Your task to perform on an android device: change the clock display to show seconds Image 0: 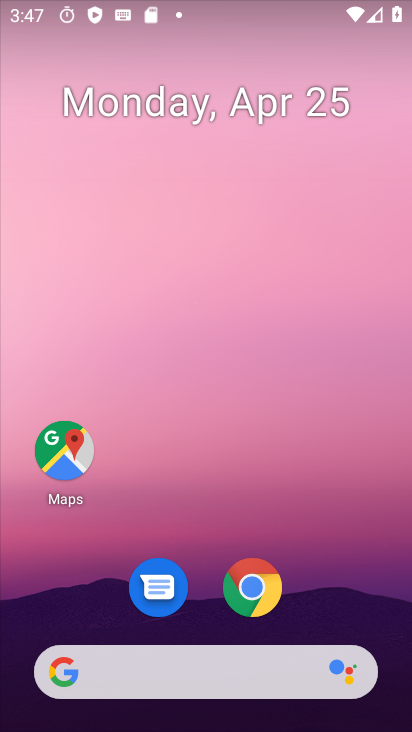
Step 0: drag from (359, 561) to (256, 129)
Your task to perform on an android device: change the clock display to show seconds Image 1: 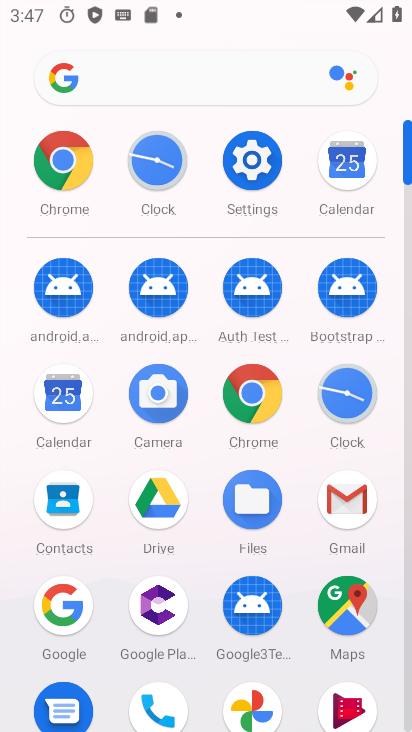
Step 1: click (345, 398)
Your task to perform on an android device: change the clock display to show seconds Image 2: 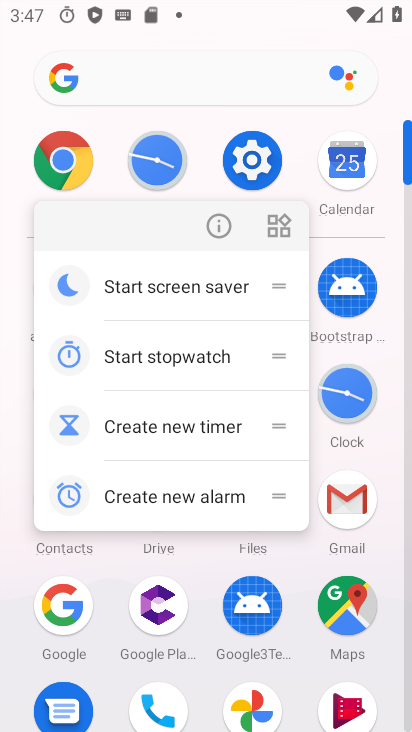
Step 2: click (349, 391)
Your task to perform on an android device: change the clock display to show seconds Image 3: 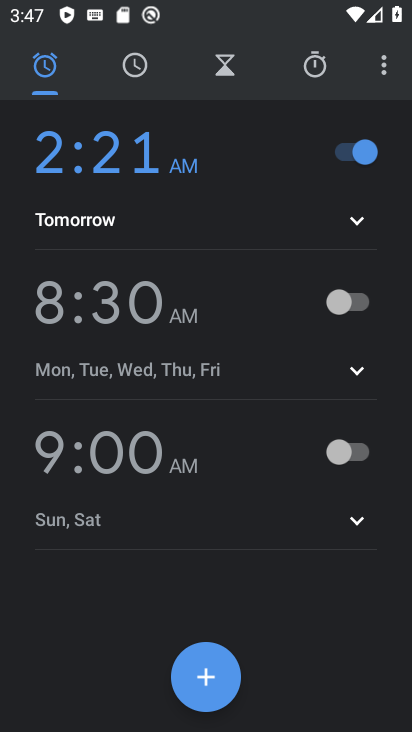
Step 3: click (384, 68)
Your task to perform on an android device: change the clock display to show seconds Image 4: 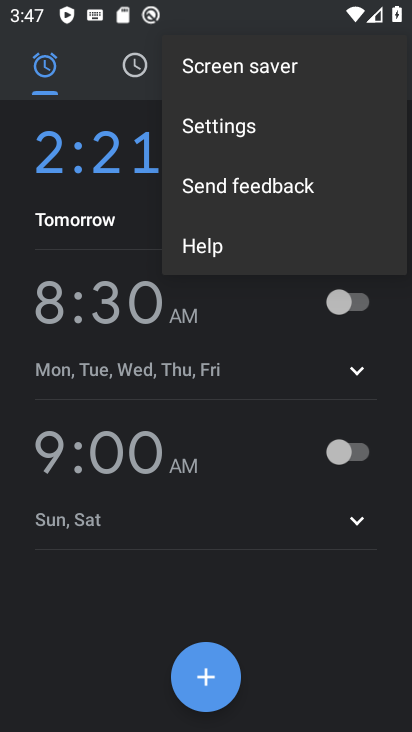
Step 4: click (245, 136)
Your task to perform on an android device: change the clock display to show seconds Image 5: 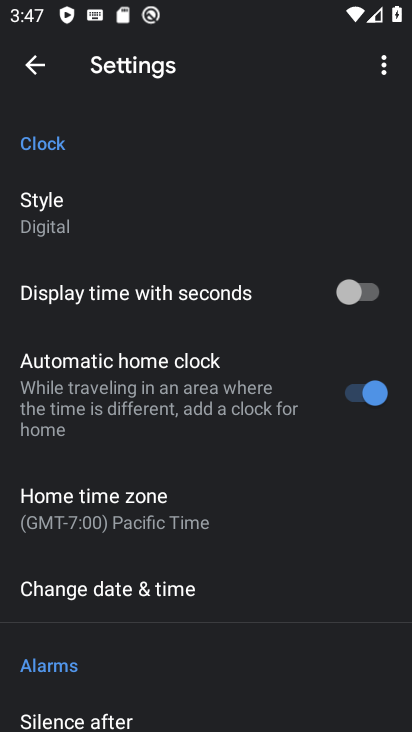
Step 5: click (350, 309)
Your task to perform on an android device: change the clock display to show seconds Image 6: 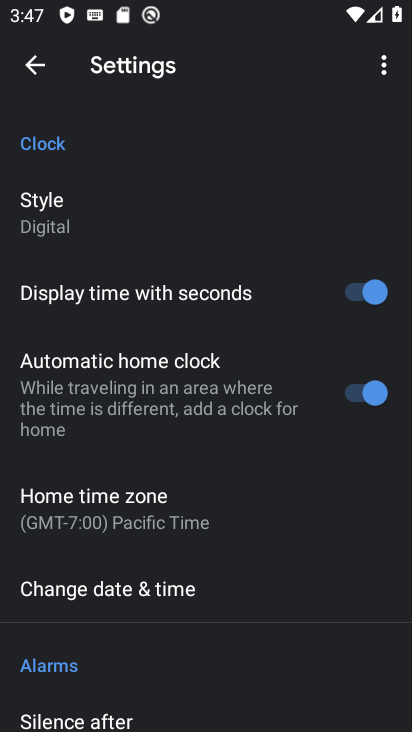
Step 6: task complete